Your task to perform on an android device: change the clock style Image 0: 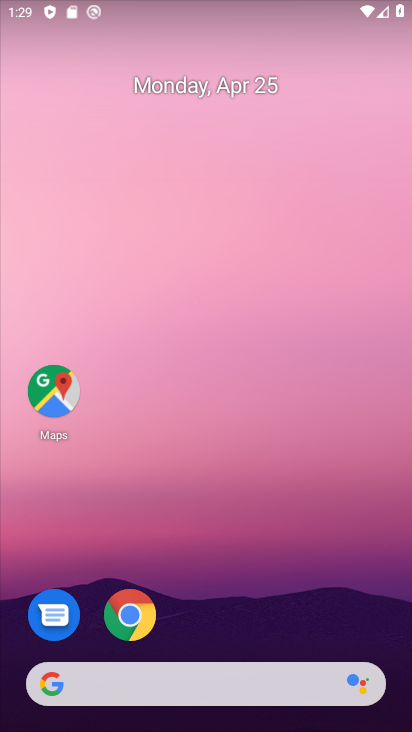
Step 0: drag from (239, 626) to (168, 86)
Your task to perform on an android device: change the clock style Image 1: 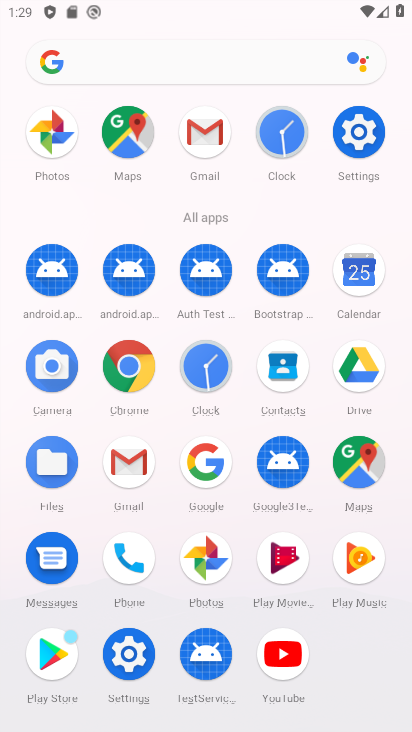
Step 1: click (280, 152)
Your task to perform on an android device: change the clock style Image 2: 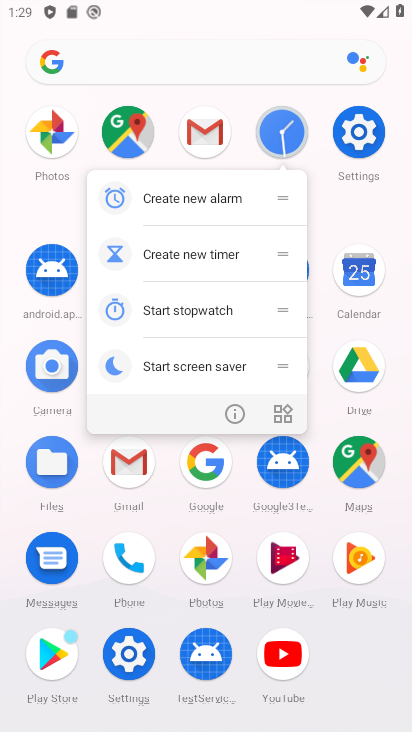
Step 2: click (280, 152)
Your task to perform on an android device: change the clock style Image 3: 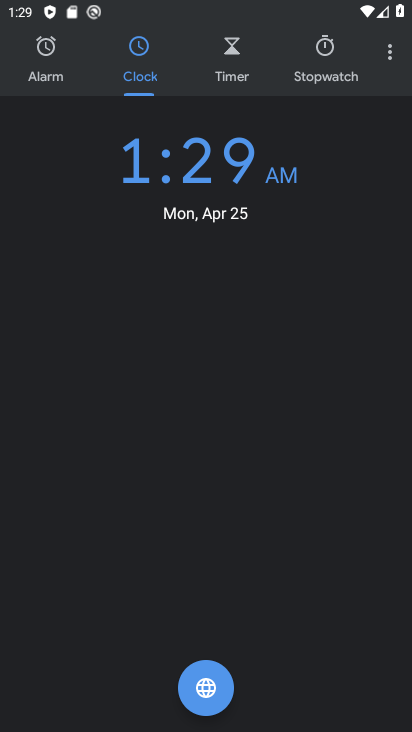
Step 3: click (379, 69)
Your task to perform on an android device: change the clock style Image 4: 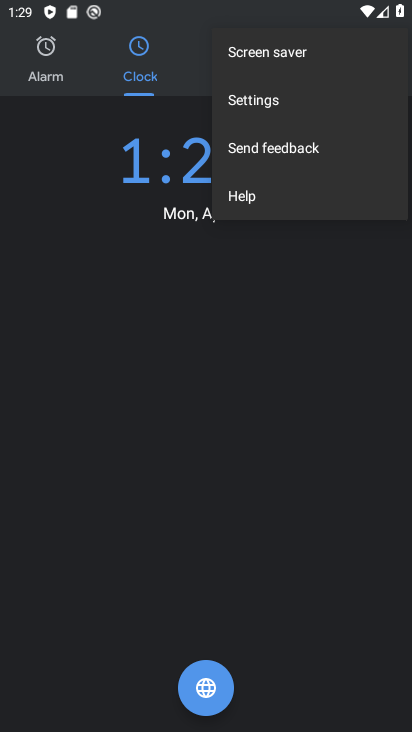
Step 4: click (336, 112)
Your task to perform on an android device: change the clock style Image 5: 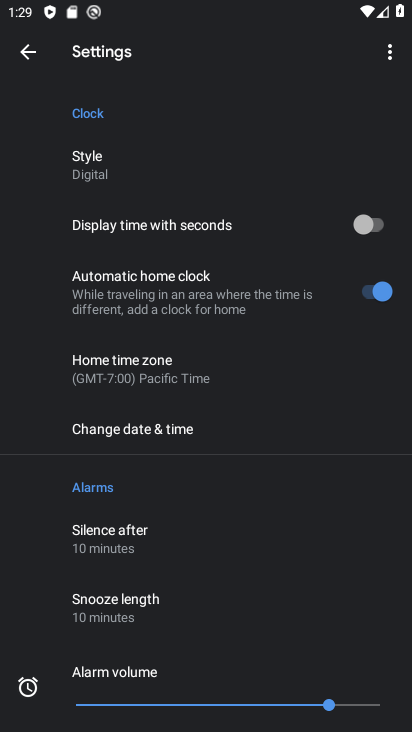
Step 5: click (160, 157)
Your task to perform on an android device: change the clock style Image 6: 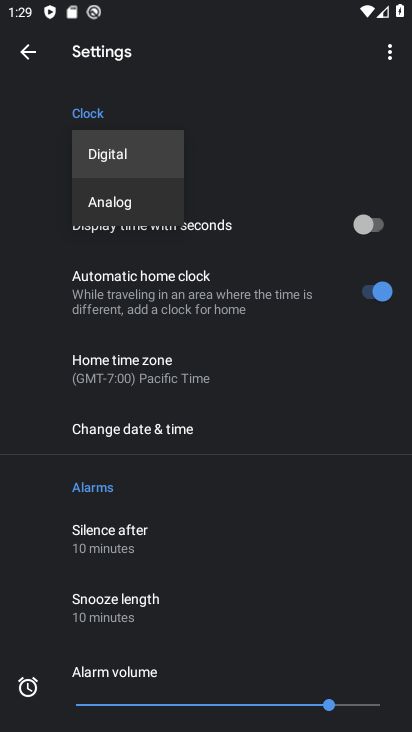
Step 6: click (169, 215)
Your task to perform on an android device: change the clock style Image 7: 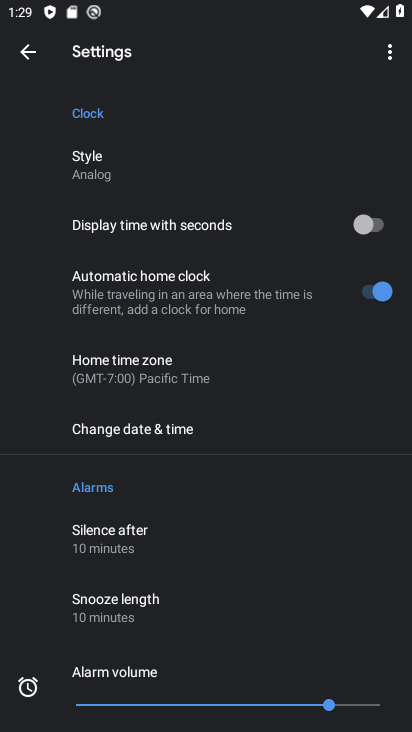
Step 7: task complete